Your task to perform on an android device: toggle notifications settings in the gmail app Image 0: 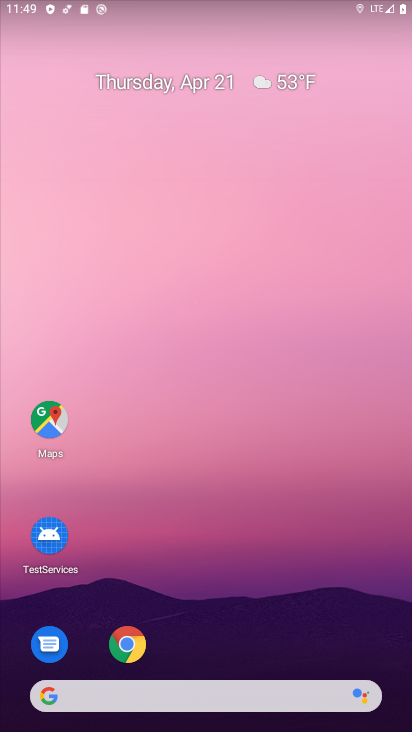
Step 0: drag from (254, 467) to (169, 36)
Your task to perform on an android device: toggle notifications settings in the gmail app Image 1: 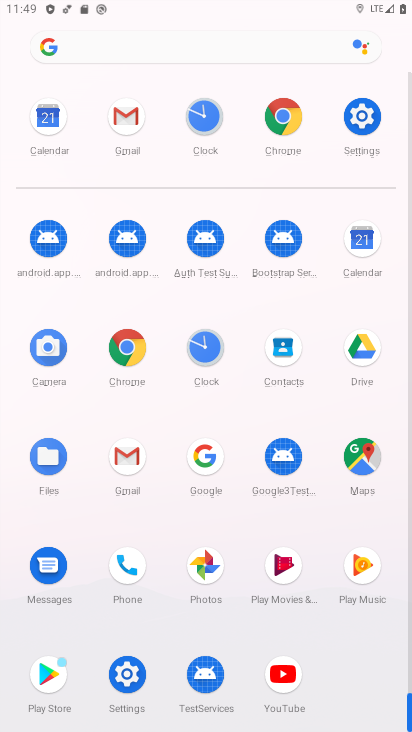
Step 1: click (129, 460)
Your task to perform on an android device: toggle notifications settings in the gmail app Image 2: 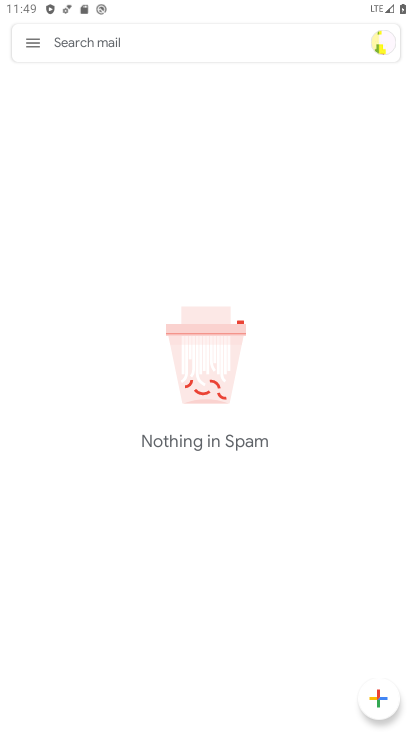
Step 2: click (36, 41)
Your task to perform on an android device: toggle notifications settings in the gmail app Image 3: 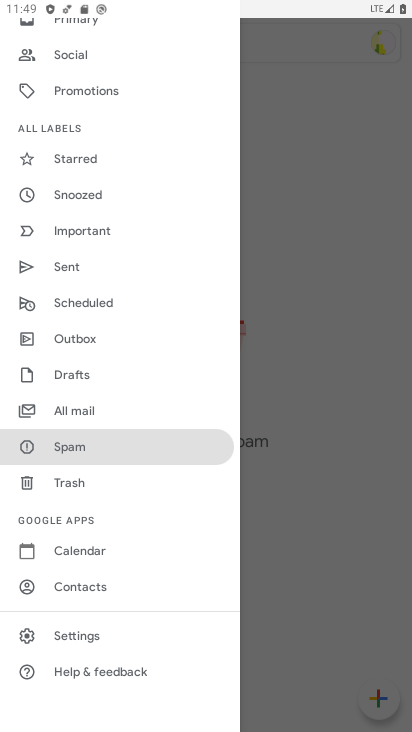
Step 3: click (69, 642)
Your task to perform on an android device: toggle notifications settings in the gmail app Image 4: 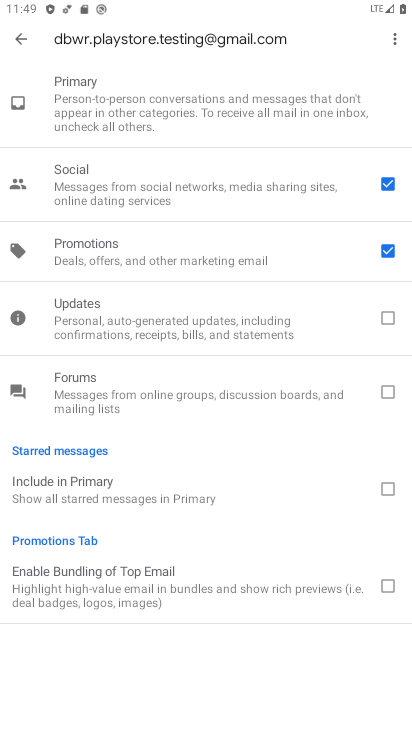
Step 4: drag from (139, 266) to (291, 714)
Your task to perform on an android device: toggle notifications settings in the gmail app Image 5: 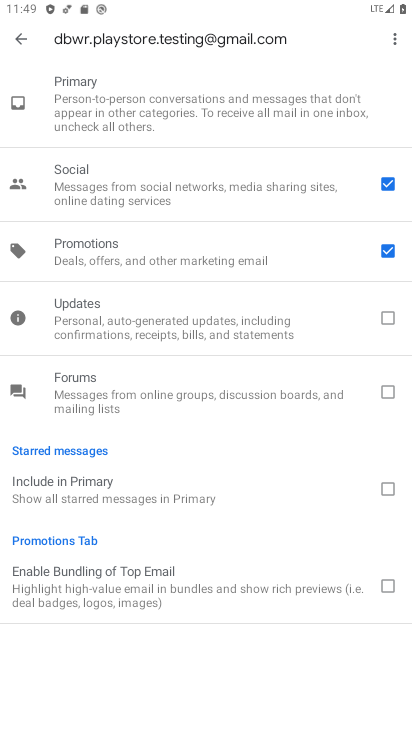
Step 5: click (17, 41)
Your task to perform on an android device: toggle notifications settings in the gmail app Image 6: 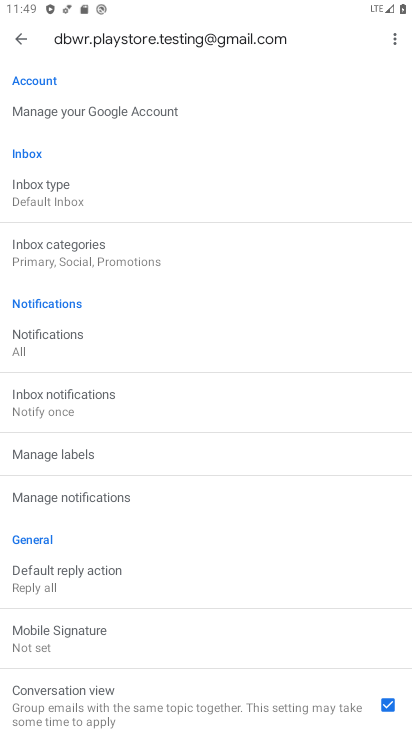
Step 6: click (123, 492)
Your task to perform on an android device: toggle notifications settings in the gmail app Image 7: 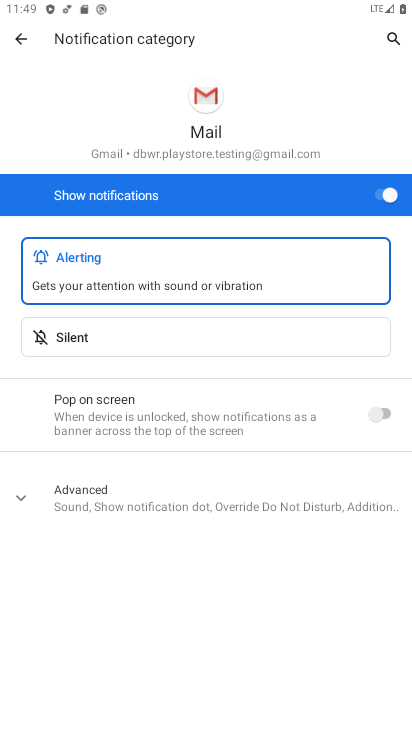
Step 7: click (367, 188)
Your task to perform on an android device: toggle notifications settings in the gmail app Image 8: 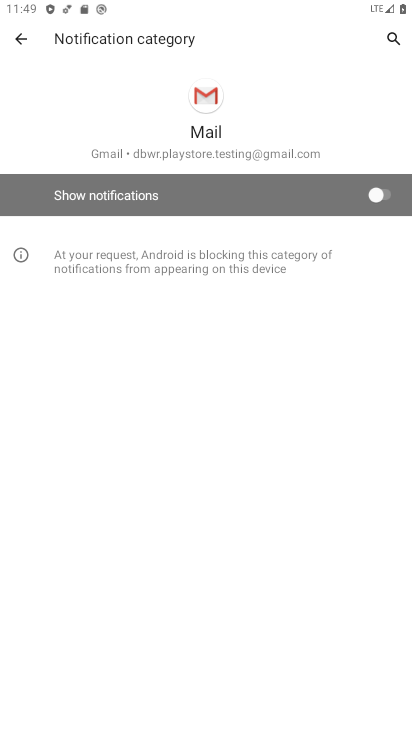
Step 8: task complete